Your task to perform on an android device: change notifications settings Image 0: 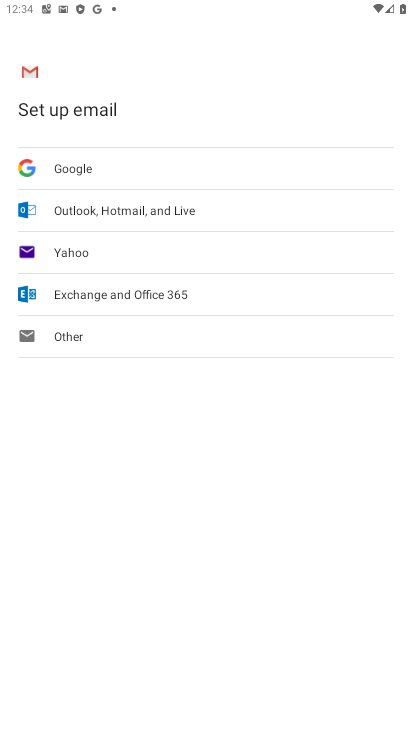
Step 0: press home button
Your task to perform on an android device: change notifications settings Image 1: 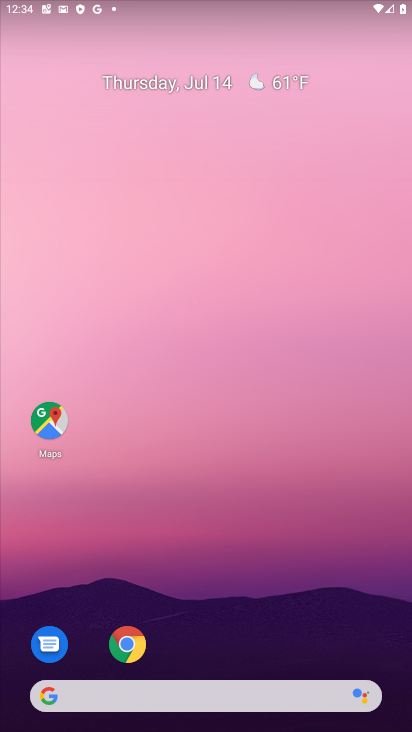
Step 1: drag from (308, 600) to (292, 0)
Your task to perform on an android device: change notifications settings Image 2: 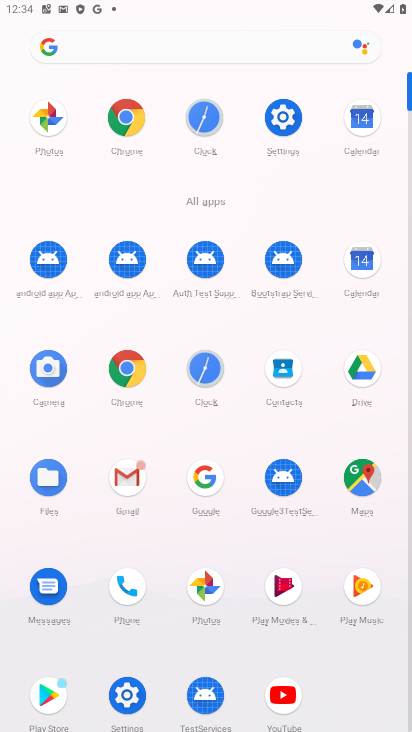
Step 2: click (288, 122)
Your task to perform on an android device: change notifications settings Image 3: 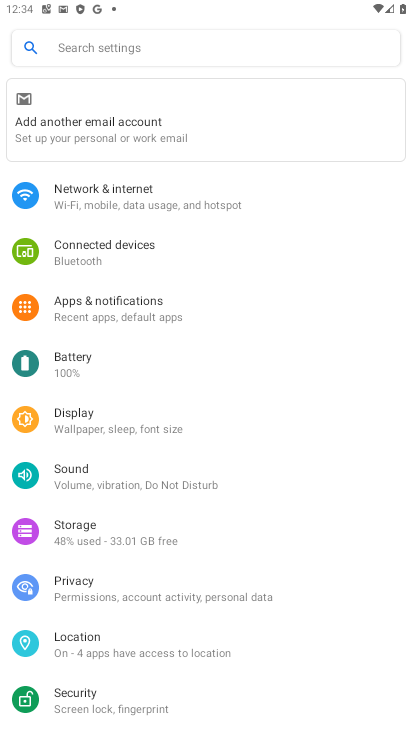
Step 3: click (141, 319)
Your task to perform on an android device: change notifications settings Image 4: 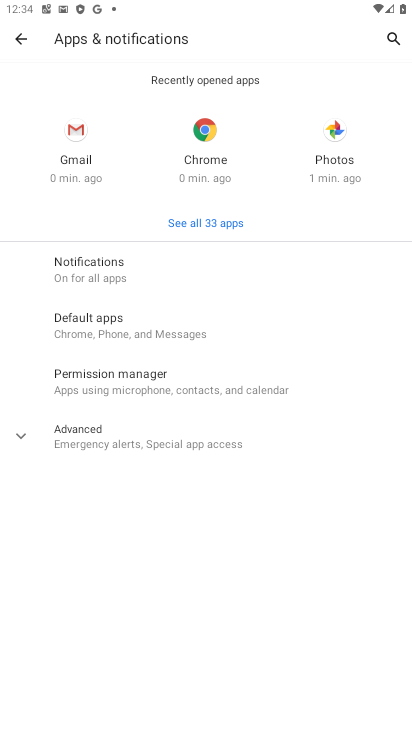
Step 4: click (120, 261)
Your task to perform on an android device: change notifications settings Image 5: 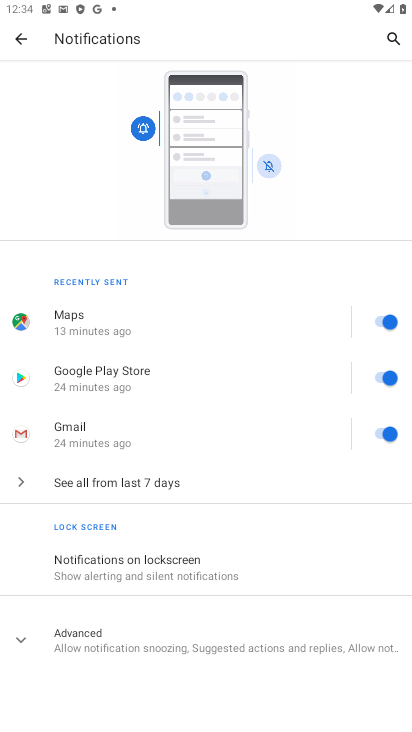
Step 5: click (109, 483)
Your task to perform on an android device: change notifications settings Image 6: 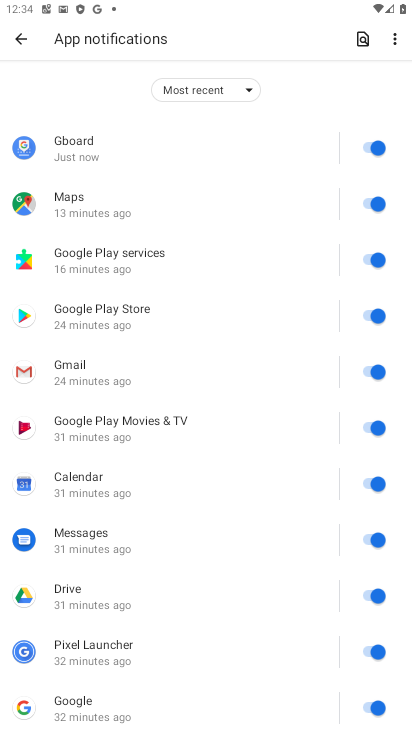
Step 6: click (386, 156)
Your task to perform on an android device: change notifications settings Image 7: 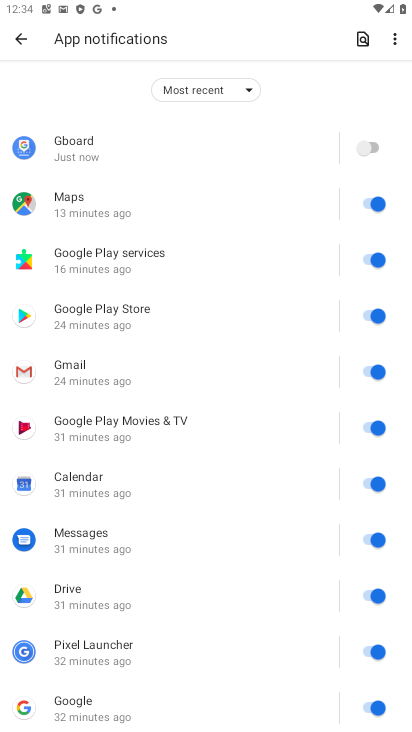
Step 7: click (376, 197)
Your task to perform on an android device: change notifications settings Image 8: 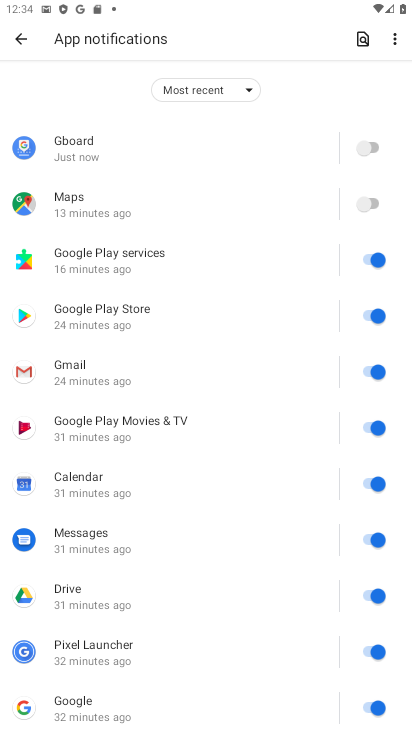
Step 8: click (376, 257)
Your task to perform on an android device: change notifications settings Image 9: 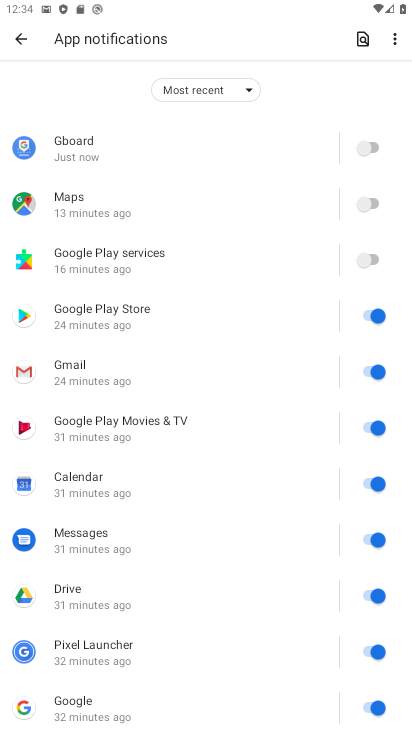
Step 9: click (373, 321)
Your task to perform on an android device: change notifications settings Image 10: 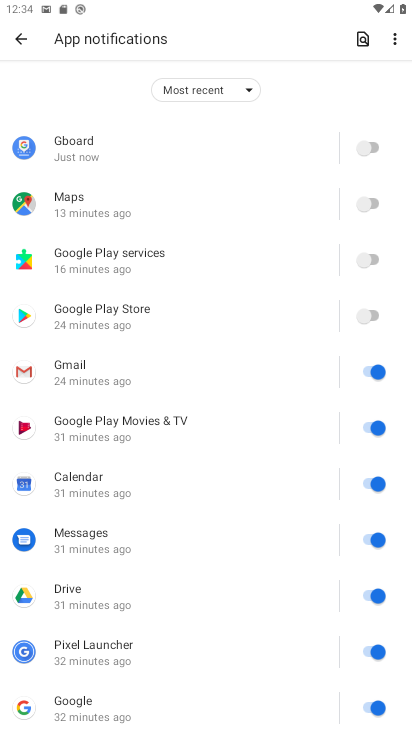
Step 10: click (373, 367)
Your task to perform on an android device: change notifications settings Image 11: 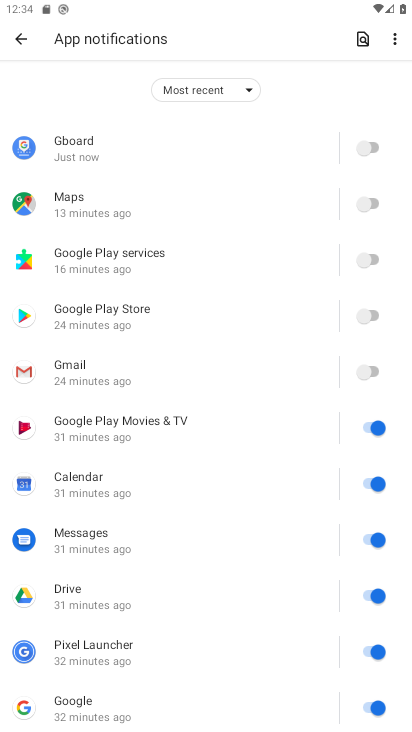
Step 11: click (373, 436)
Your task to perform on an android device: change notifications settings Image 12: 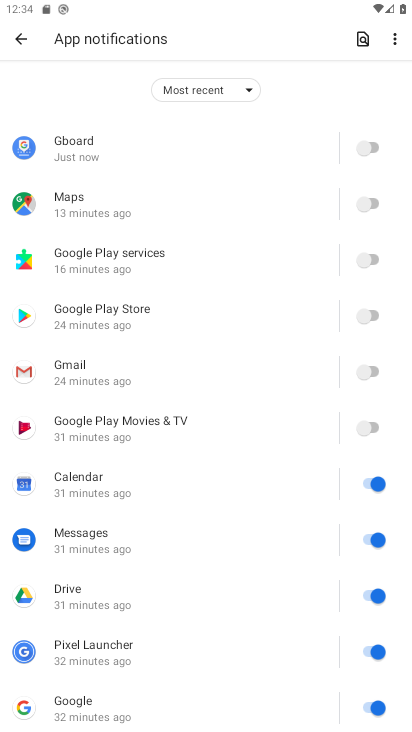
Step 12: click (373, 484)
Your task to perform on an android device: change notifications settings Image 13: 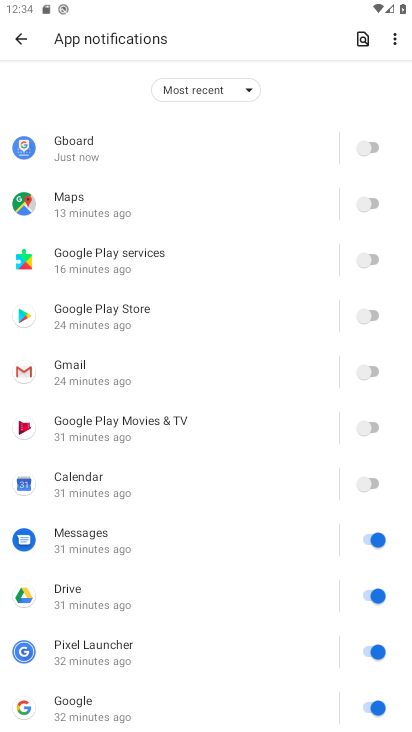
Step 13: click (377, 532)
Your task to perform on an android device: change notifications settings Image 14: 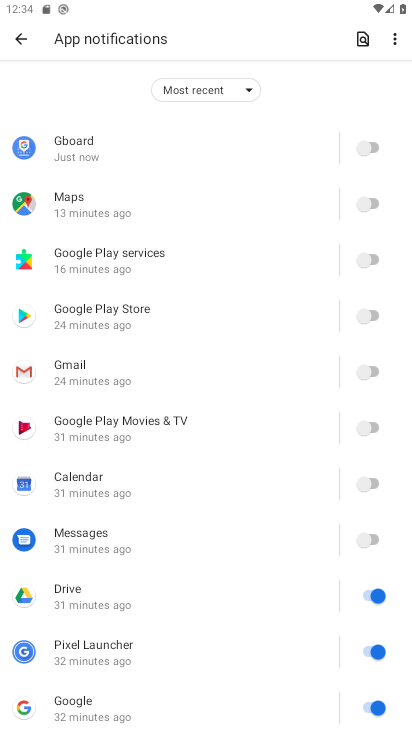
Step 14: click (379, 595)
Your task to perform on an android device: change notifications settings Image 15: 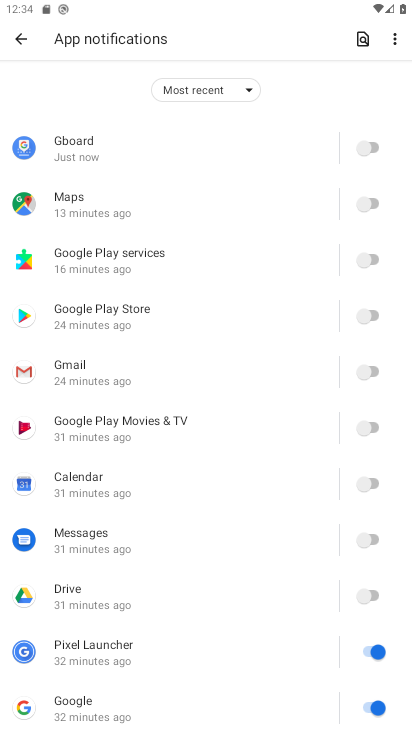
Step 15: click (378, 658)
Your task to perform on an android device: change notifications settings Image 16: 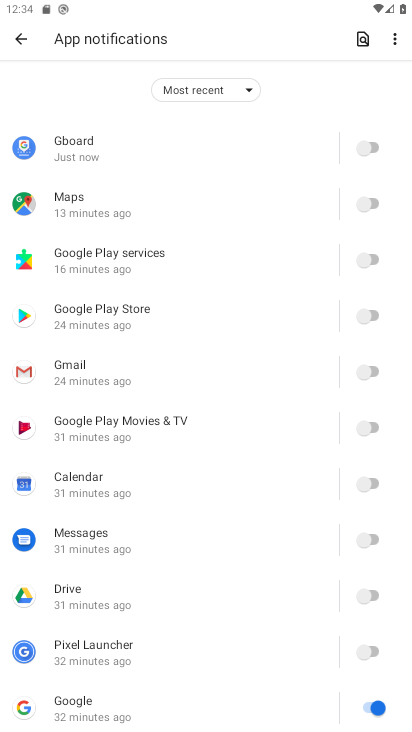
Step 16: click (378, 704)
Your task to perform on an android device: change notifications settings Image 17: 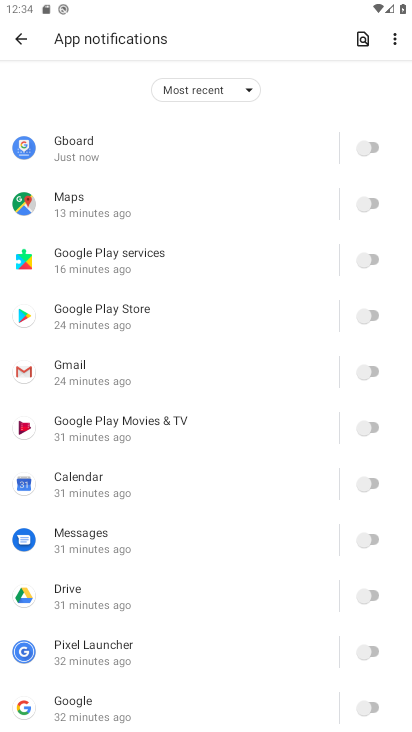
Step 17: drag from (209, 694) to (224, 213)
Your task to perform on an android device: change notifications settings Image 18: 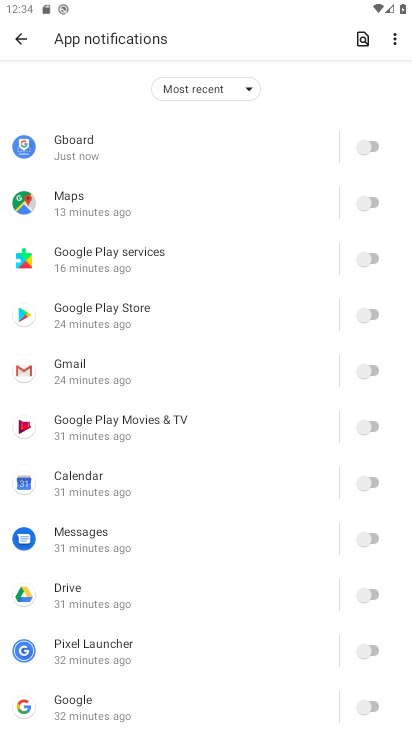
Step 18: click (24, 38)
Your task to perform on an android device: change notifications settings Image 19: 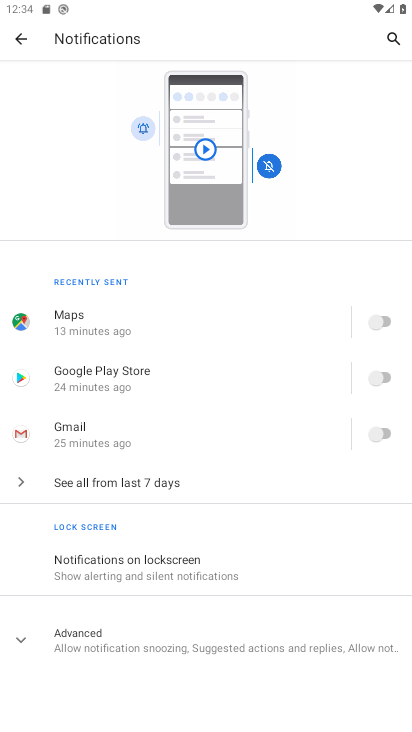
Step 19: click (125, 581)
Your task to perform on an android device: change notifications settings Image 20: 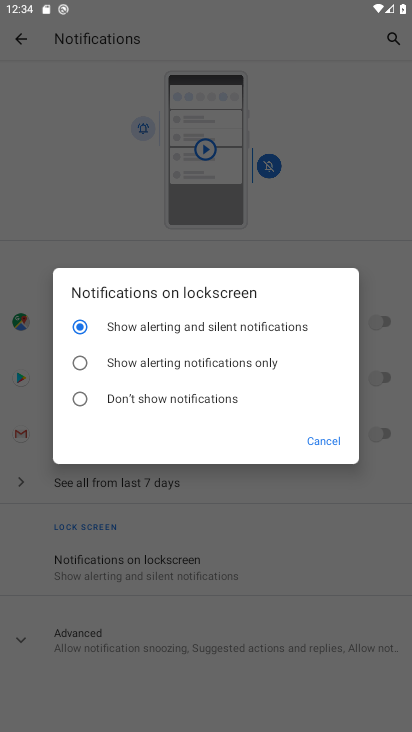
Step 20: click (133, 360)
Your task to perform on an android device: change notifications settings Image 21: 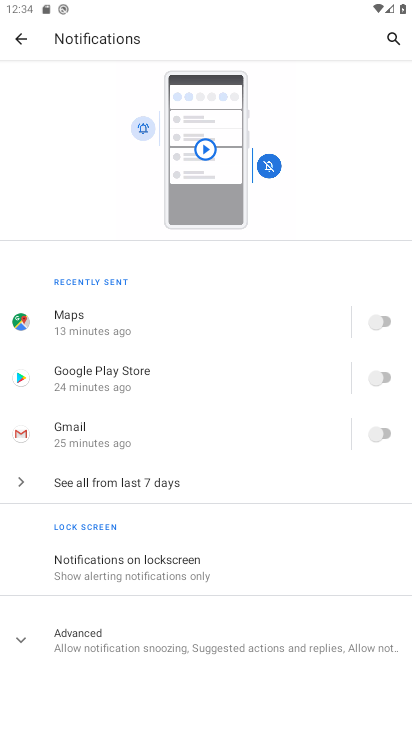
Step 21: click (150, 648)
Your task to perform on an android device: change notifications settings Image 22: 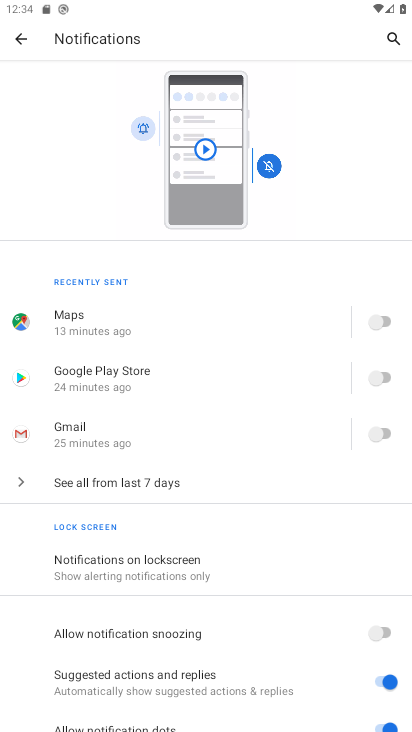
Step 22: click (374, 629)
Your task to perform on an android device: change notifications settings Image 23: 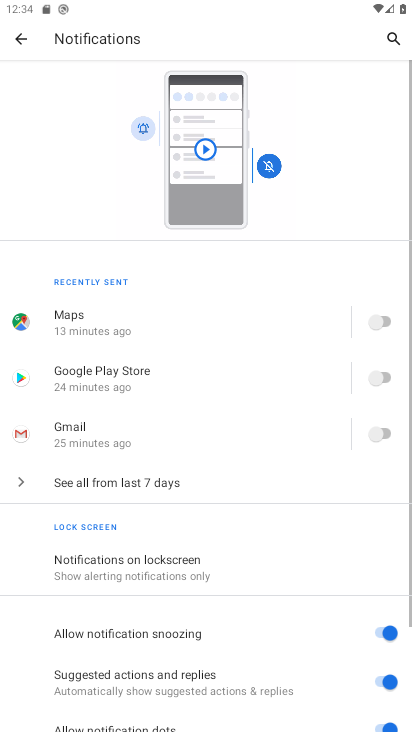
Step 23: click (383, 659)
Your task to perform on an android device: change notifications settings Image 24: 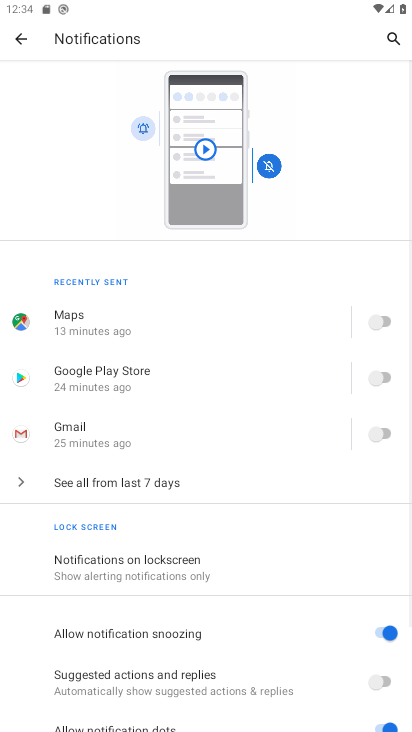
Step 24: click (386, 722)
Your task to perform on an android device: change notifications settings Image 25: 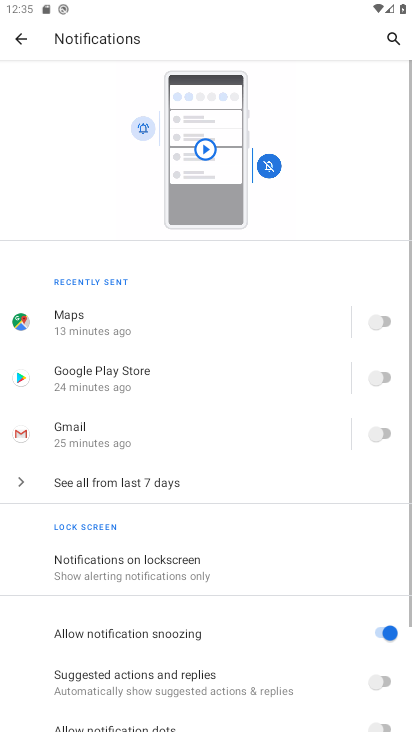
Step 25: task complete